Your task to perform on an android device: turn off translation in the chrome app Image 0: 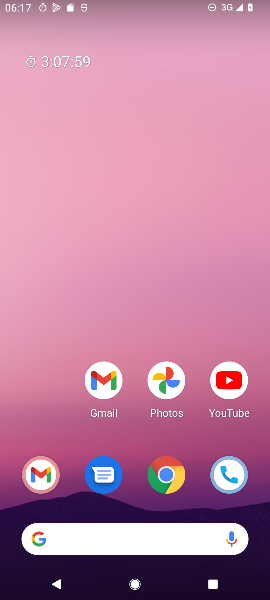
Step 0: press home button
Your task to perform on an android device: turn off translation in the chrome app Image 1: 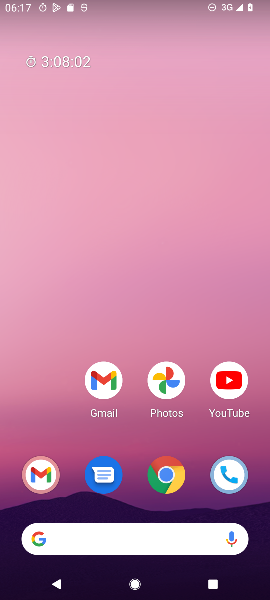
Step 1: drag from (63, 450) to (78, 241)
Your task to perform on an android device: turn off translation in the chrome app Image 2: 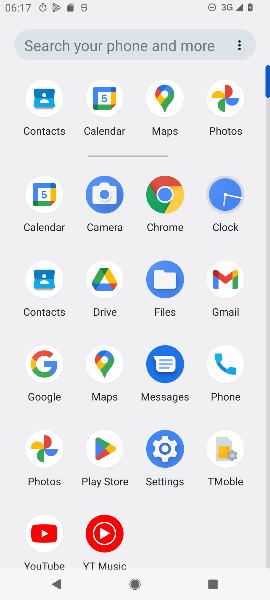
Step 2: click (166, 194)
Your task to perform on an android device: turn off translation in the chrome app Image 3: 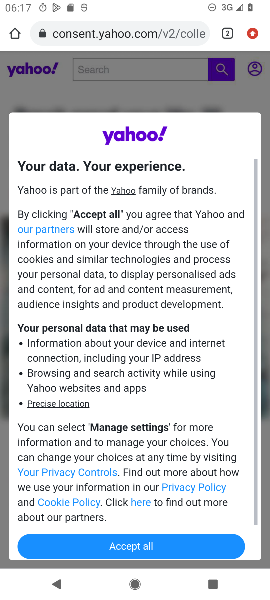
Step 3: click (250, 30)
Your task to perform on an android device: turn off translation in the chrome app Image 4: 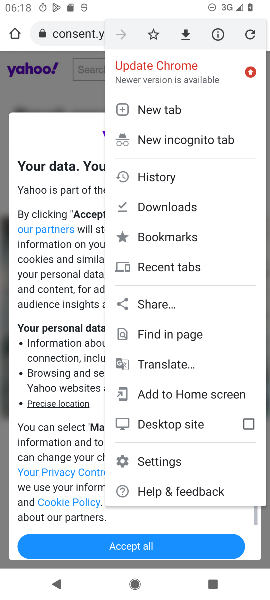
Step 4: click (165, 459)
Your task to perform on an android device: turn off translation in the chrome app Image 5: 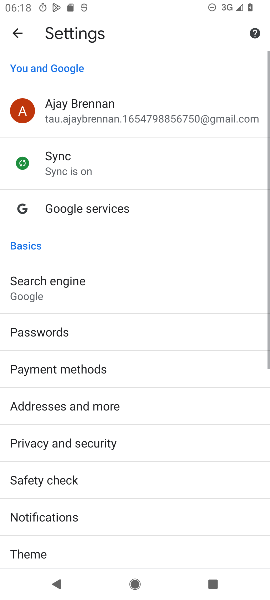
Step 5: drag from (176, 442) to (197, 356)
Your task to perform on an android device: turn off translation in the chrome app Image 6: 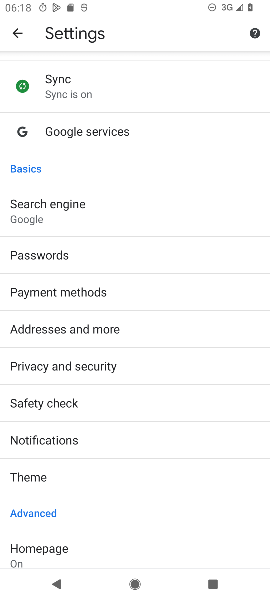
Step 6: drag from (193, 462) to (205, 373)
Your task to perform on an android device: turn off translation in the chrome app Image 7: 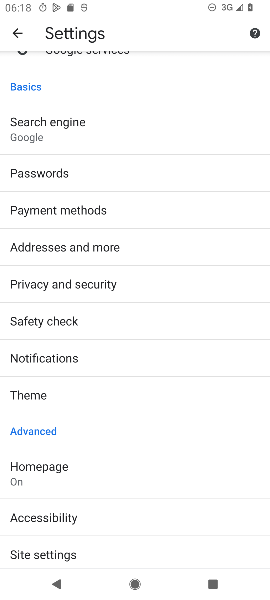
Step 7: drag from (202, 479) to (208, 384)
Your task to perform on an android device: turn off translation in the chrome app Image 8: 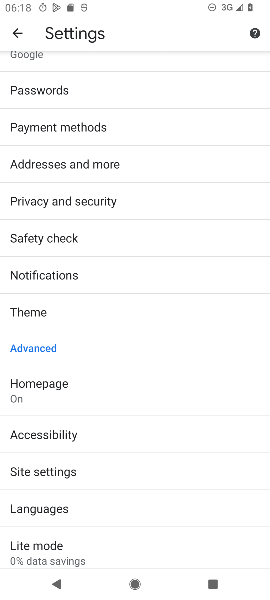
Step 8: drag from (209, 496) to (213, 404)
Your task to perform on an android device: turn off translation in the chrome app Image 9: 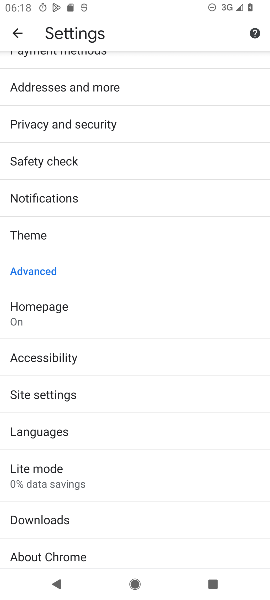
Step 9: drag from (165, 465) to (181, 369)
Your task to perform on an android device: turn off translation in the chrome app Image 10: 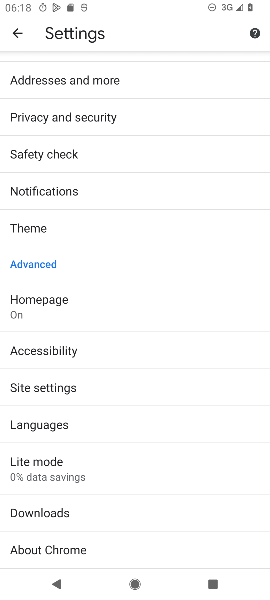
Step 10: click (147, 423)
Your task to perform on an android device: turn off translation in the chrome app Image 11: 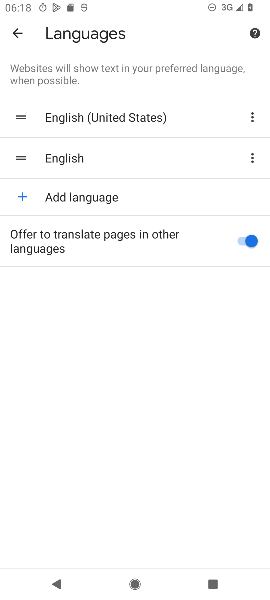
Step 11: click (250, 239)
Your task to perform on an android device: turn off translation in the chrome app Image 12: 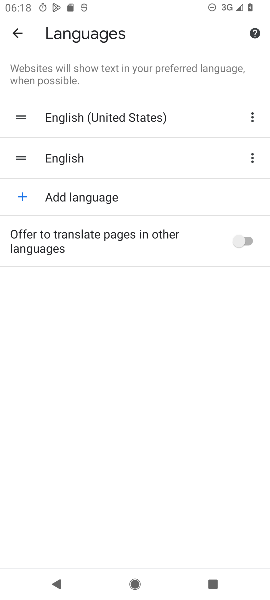
Step 12: task complete